Your task to perform on an android device: Toggle the flashlight Image 0: 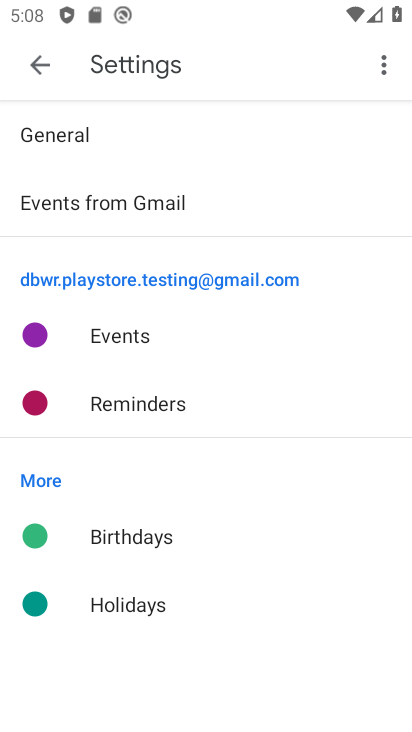
Step 0: drag from (208, 608) to (224, 137)
Your task to perform on an android device: Toggle the flashlight Image 1: 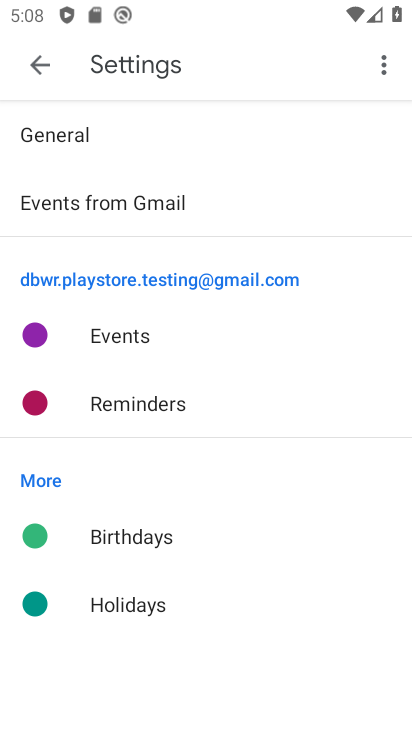
Step 1: press home button
Your task to perform on an android device: Toggle the flashlight Image 2: 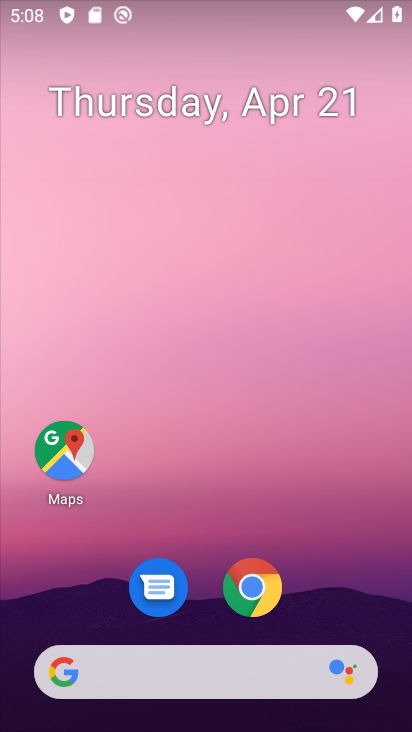
Step 2: drag from (209, 7) to (210, 584)
Your task to perform on an android device: Toggle the flashlight Image 3: 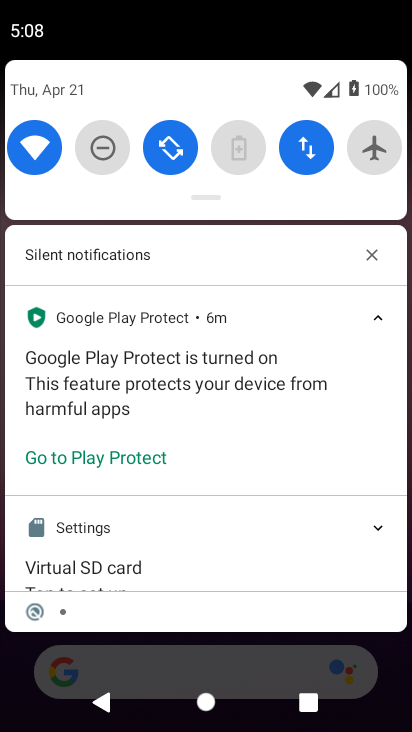
Step 3: drag from (188, 657) to (223, 248)
Your task to perform on an android device: Toggle the flashlight Image 4: 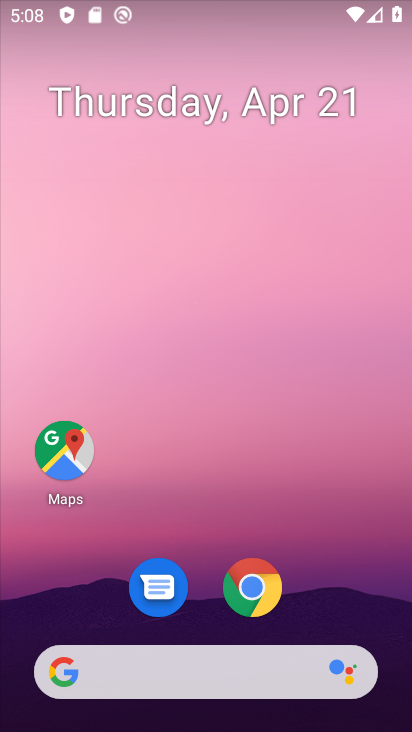
Step 4: drag from (196, 558) to (243, 100)
Your task to perform on an android device: Toggle the flashlight Image 5: 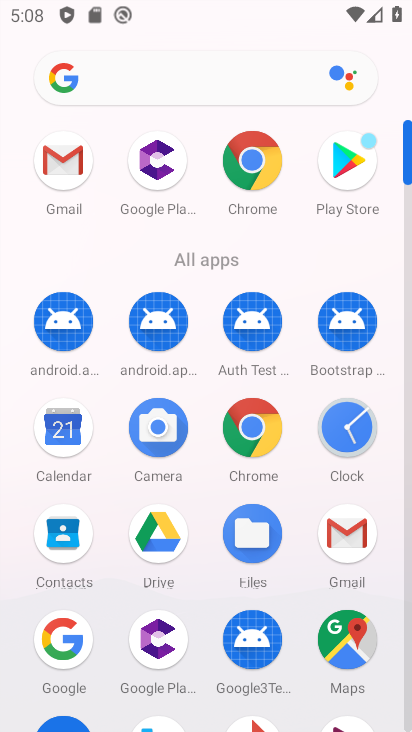
Step 5: click (131, 73)
Your task to perform on an android device: Toggle the flashlight Image 6: 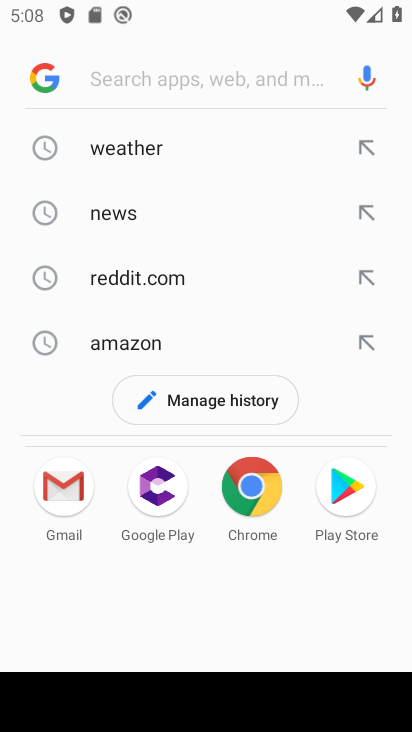
Step 6: press back button
Your task to perform on an android device: Toggle the flashlight Image 7: 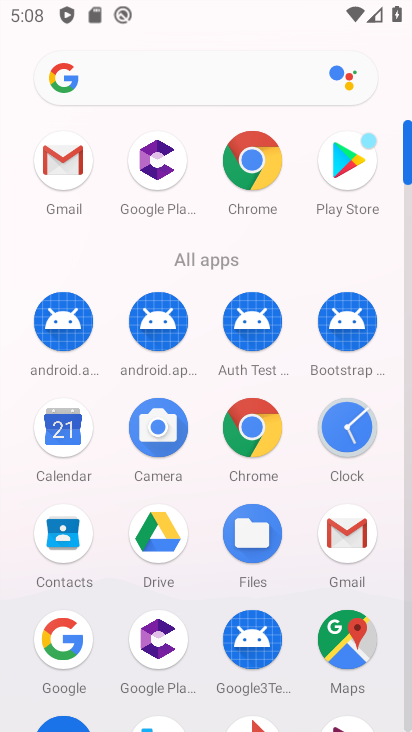
Step 7: drag from (196, 604) to (194, 227)
Your task to perform on an android device: Toggle the flashlight Image 8: 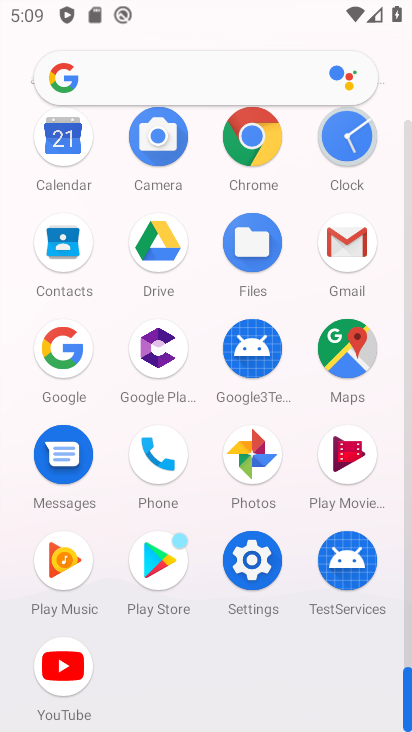
Step 8: click (251, 554)
Your task to perform on an android device: Toggle the flashlight Image 9: 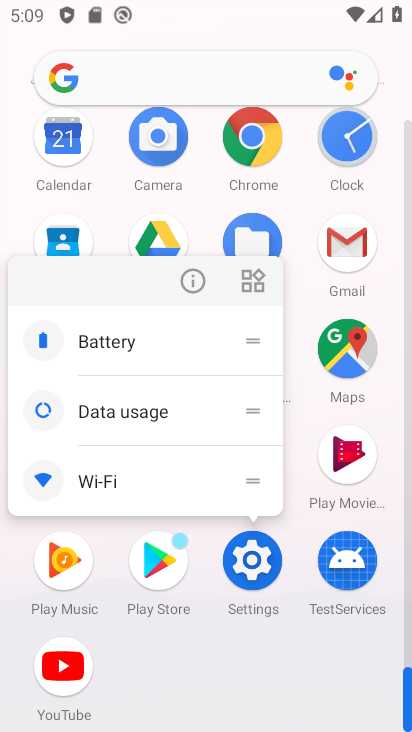
Step 9: click (250, 551)
Your task to perform on an android device: Toggle the flashlight Image 10: 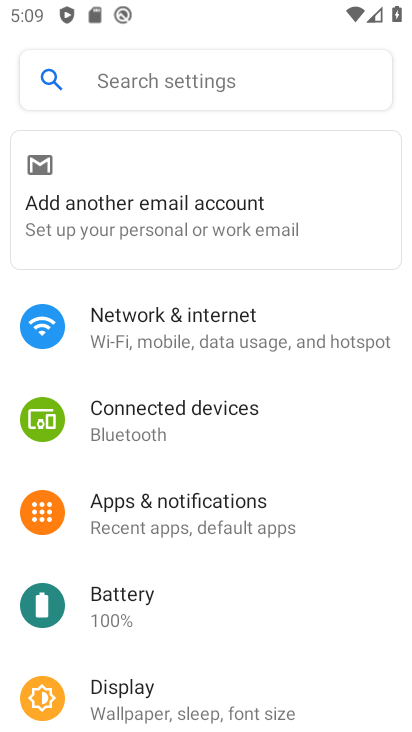
Step 10: click (142, 69)
Your task to perform on an android device: Toggle the flashlight Image 11: 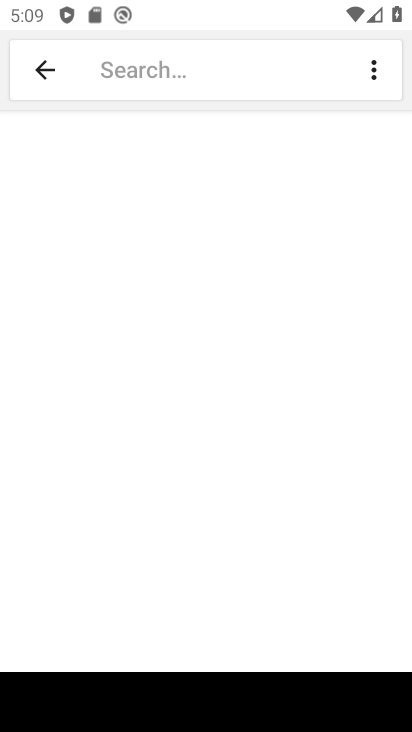
Step 11: type "flashlight"
Your task to perform on an android device: Toggle the flashlight Image 12: 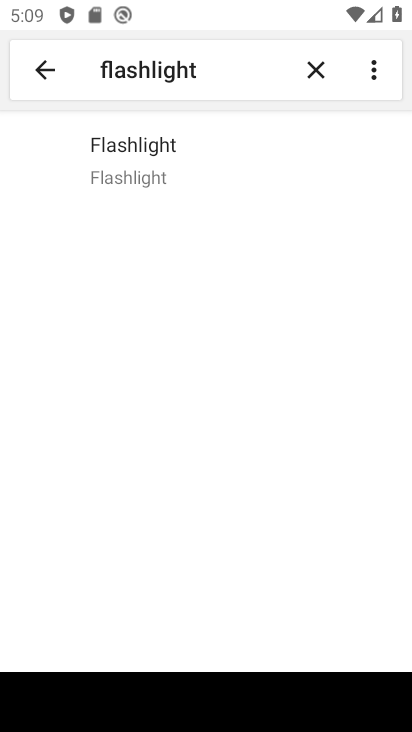
Step 12: click (154, 167)
Your task to perform on an android device: Toggle the flashlight Image 13: 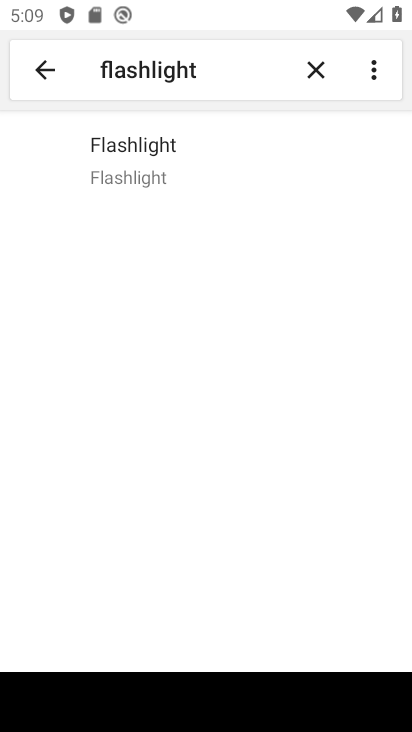
Step 13: click (173, 160)
Your task to perform on an android device: Toggle the flashlight Image 14: 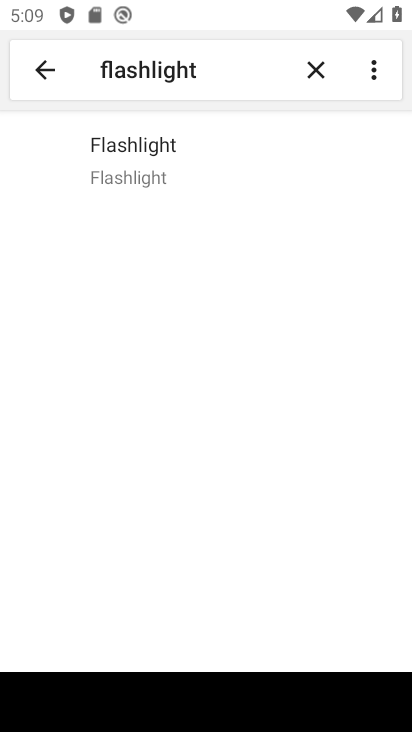
Step 14: task complete